Your task to perform on an android device: turn off priority inbox in the gmail app Image 0: 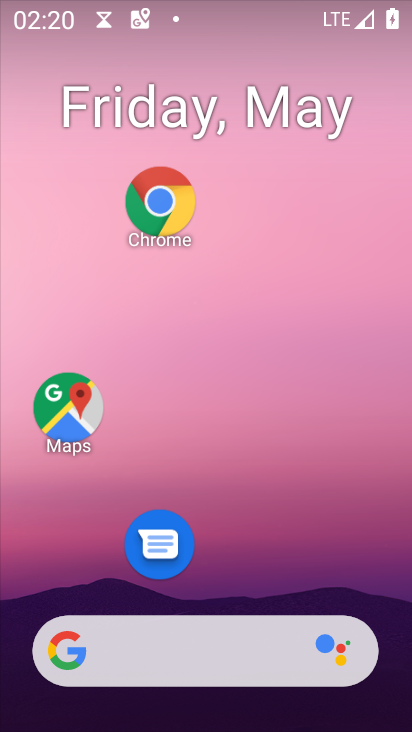
Step 0: drag from (293, 591) to (301, 226)
Your task to perform on an android device: turn off priority inbox in the gmail app Image 1: 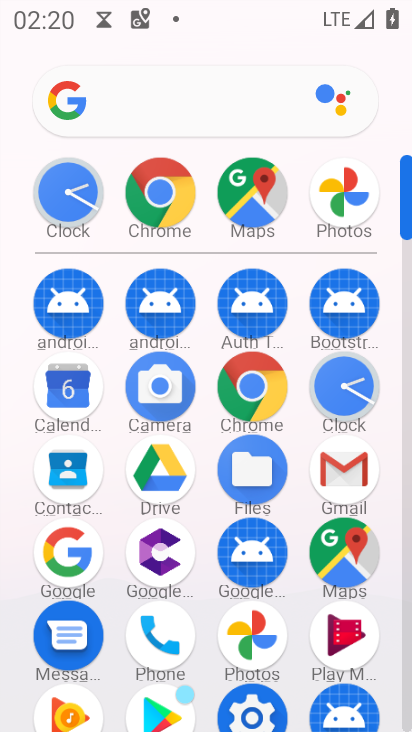
Step 1: click (356, 491)
Your task to perform on an android device: turn off priority inbox in the gmail app Image 2: 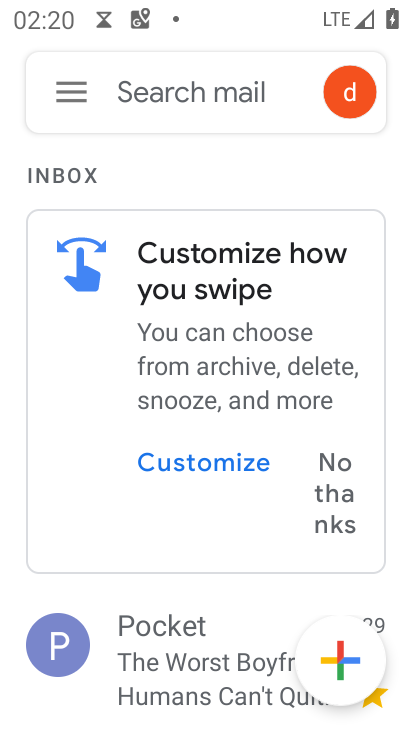
Step 2: click (57, 109)
Your task to perform on an android device: turn off priority inbox in the gmail app Image 3: 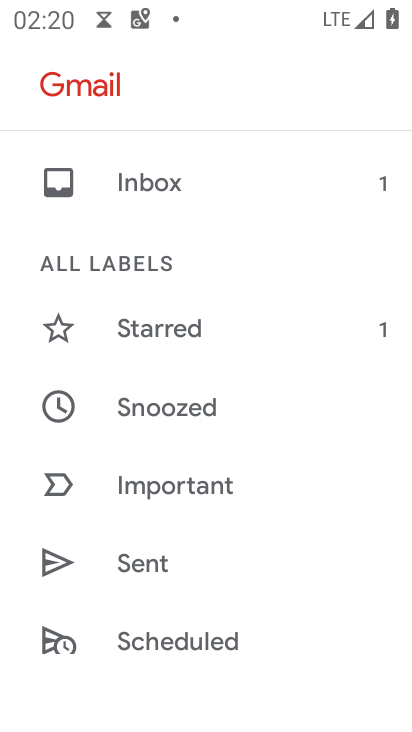
Step 3: drag from (128, 505) to (250, 122)
Your task to perform on an android device: turn off priority inbox in the gmail app Image 4: 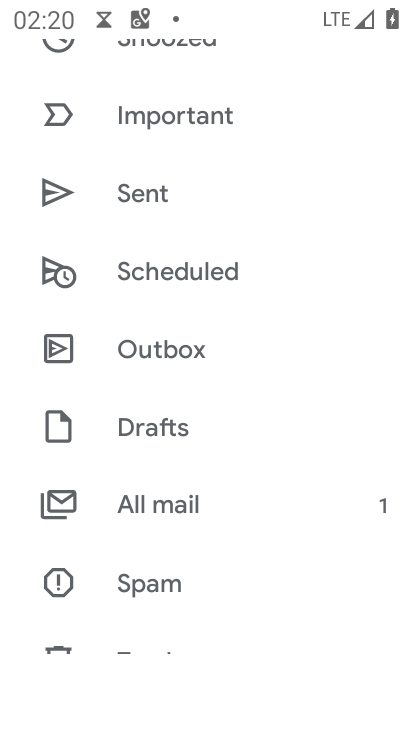
Step 4: drag from (168, 552) to (272, 246)
Your task to perform on an android device: turn off priority inbox in the gmail app Image 5: 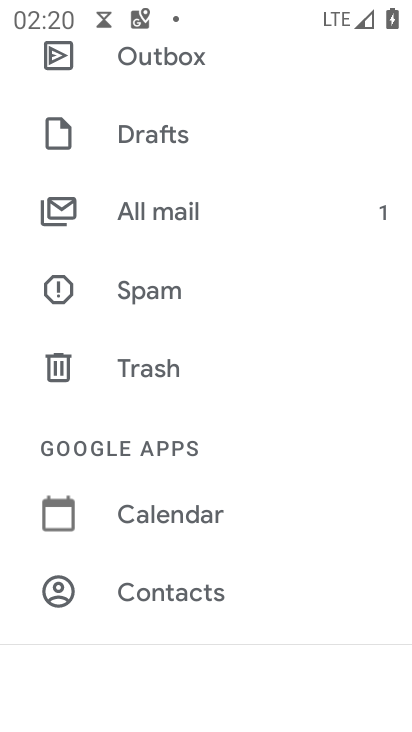
Step 5: drag from (191, 584) to (256, 388)
Your task to perform on an android device: turn off priority inbox in the gmail app Image 6: 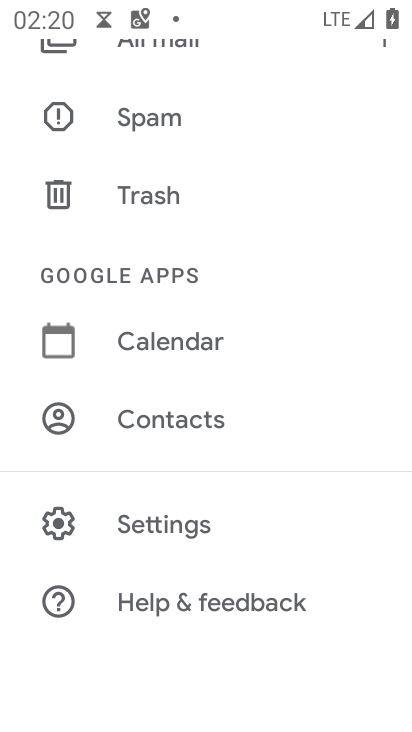
Step 6: click (217, 525)
Your task to perform on an android device: turn off priority inbox in the gmail app Image 7: 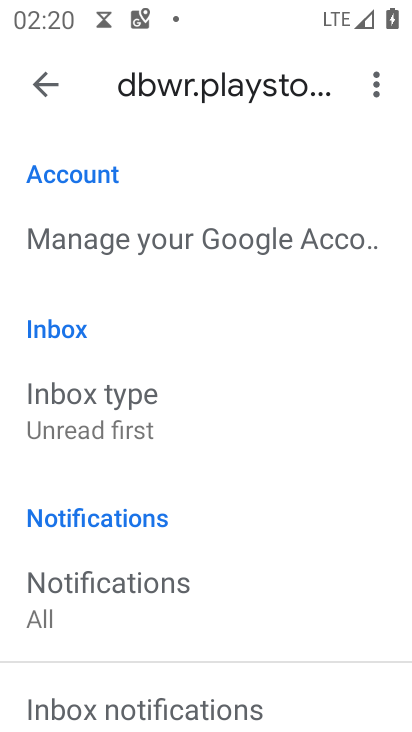
Step 7: click (157, 428)
Your task to perform on an android device: turn off priority inbox in the gmail app Image 8: 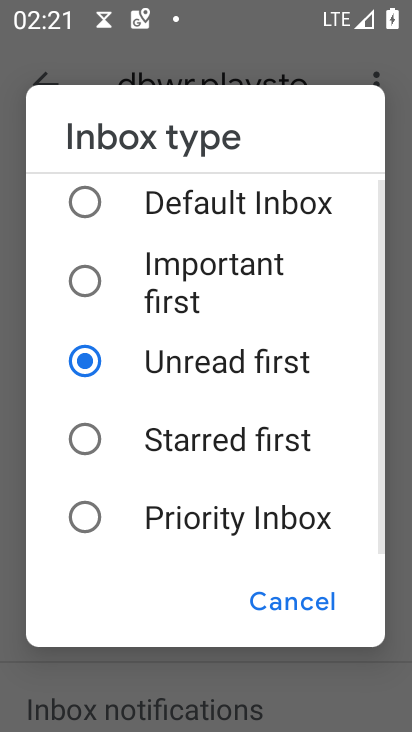
Step 8: task complete